Your task to perform on an android device: refresh tabs in the chrome app Image 0: 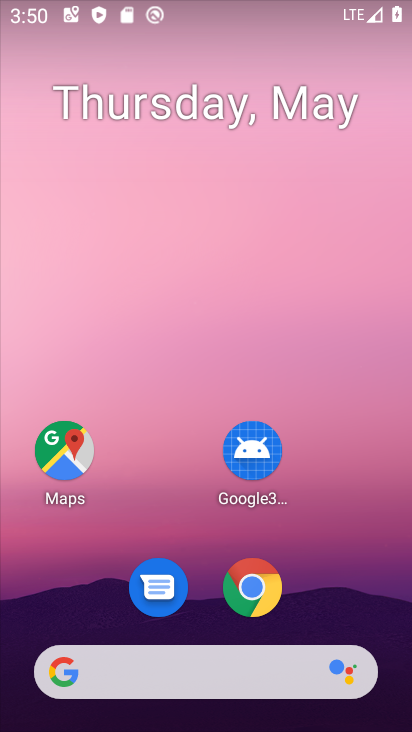
Step 0: drag from (219, 638) to (172, 447)
Your task to perform on an android device: refresh tabs in the chrome app Image 1: 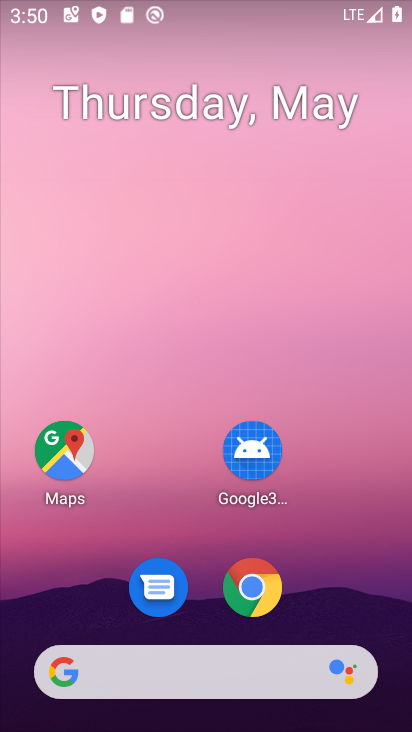
Step 1: click (270, 593)
Your task to perform on an android device: refresh tabs in the chrome app Image 2: 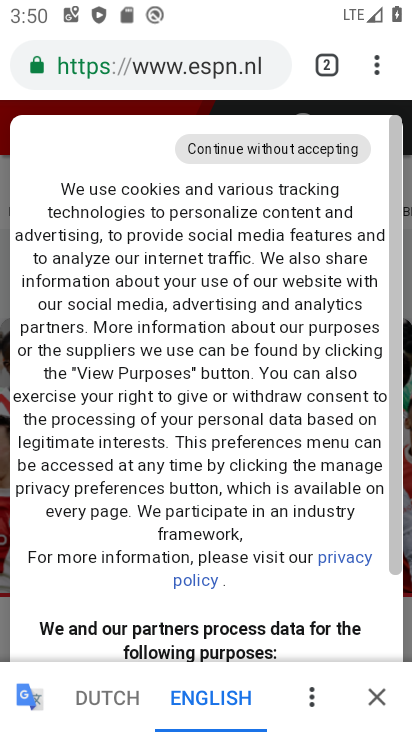
Step 2: click (377, 75)
Your task to perform on an android device: refresh tabs in the chrome app Image 3: 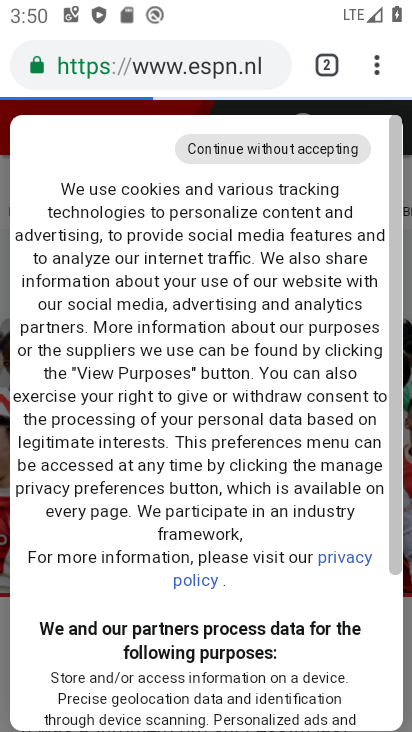
Step 3: click (377, 75)
Your task to perform on an android device: refresh tabs in the chrome app Image 4: 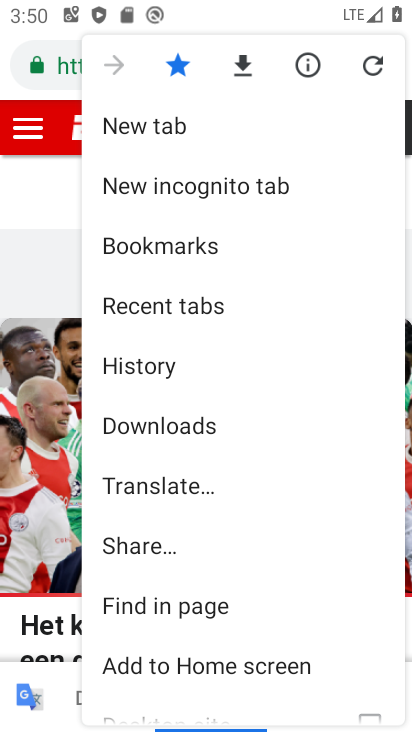
Step 4: click (375, 67)
Your task to perform on an android device: refresh tabs in the chrome app Image 5: 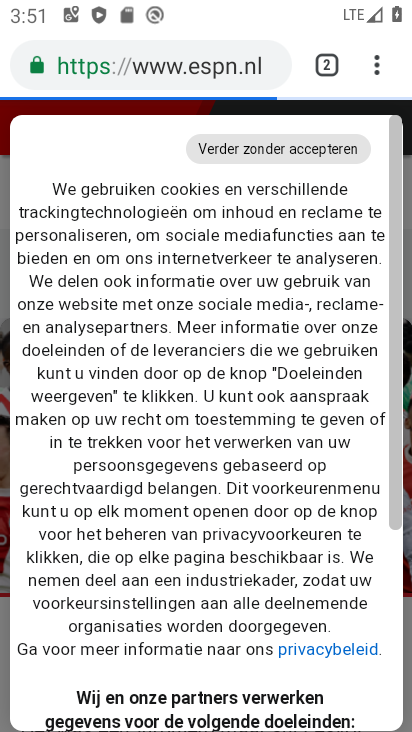
Step 5: task complete